Your task to perform on an android device: turn smart compose on in the gmail app Image 0: 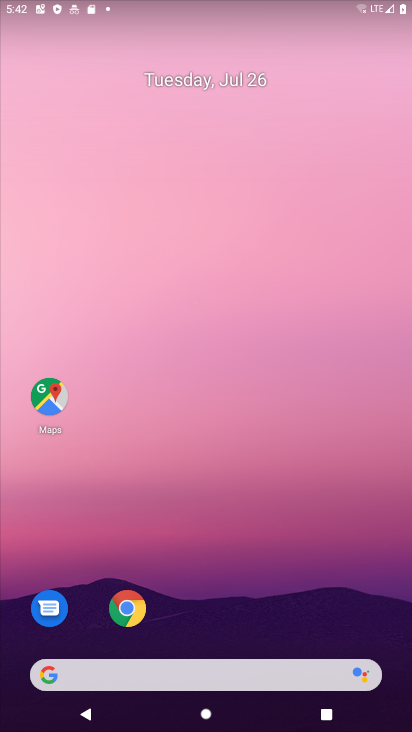
Step 0: press home button
Your task to perform on an android device: turn smart compose on in the gmail app Image 1: 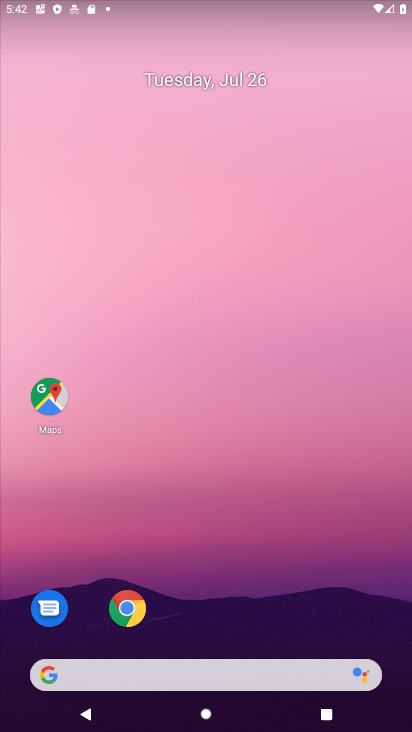
Step 1: drag from (268, 642) to (213, 70)
Your task to perform on an android device: turn smart compose on in the gmail app Image 2: 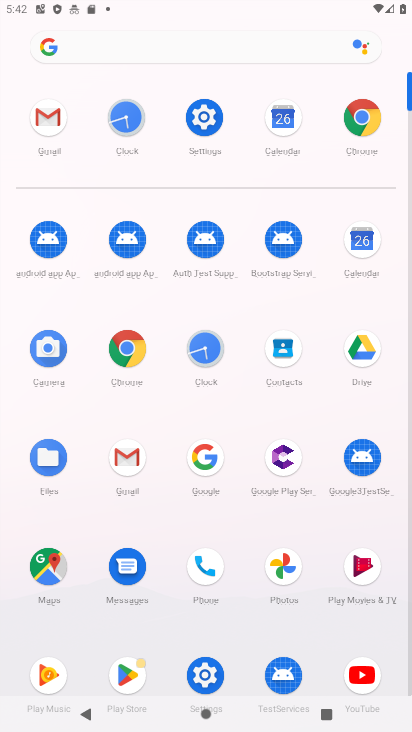
Step 2: click (43, 133)
Your task to perform on an android device: turn smart compose on in the gmail app Image 3: 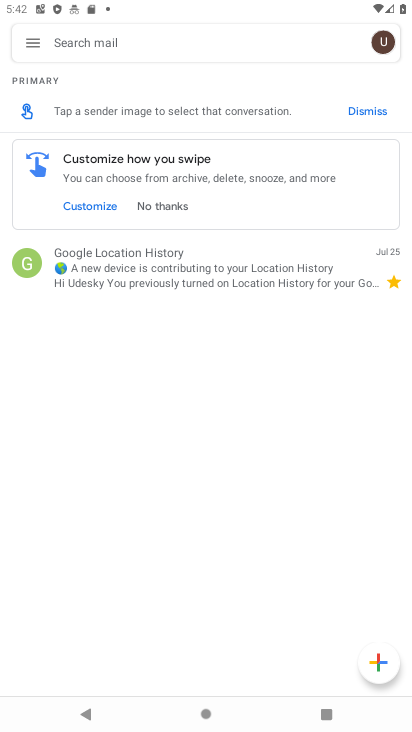
Step 3: click (32, 51)
Your task to perform on an android device: turn smart compose on in the gmail app Image 4: 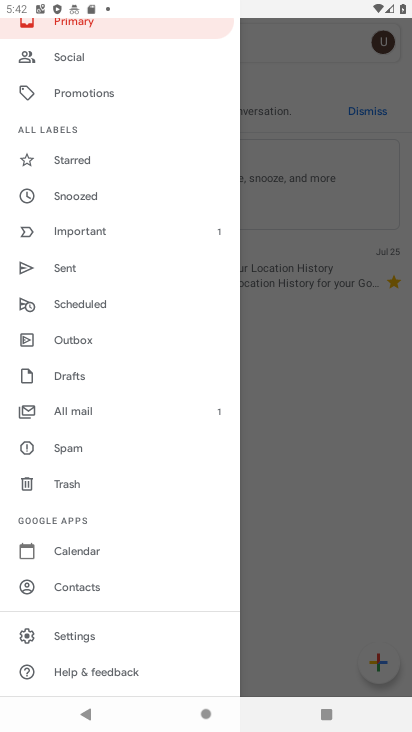
Step 4: click (58, 634)
Your task to perform on an android device: turn smart compose on in the gmail app Image 5: 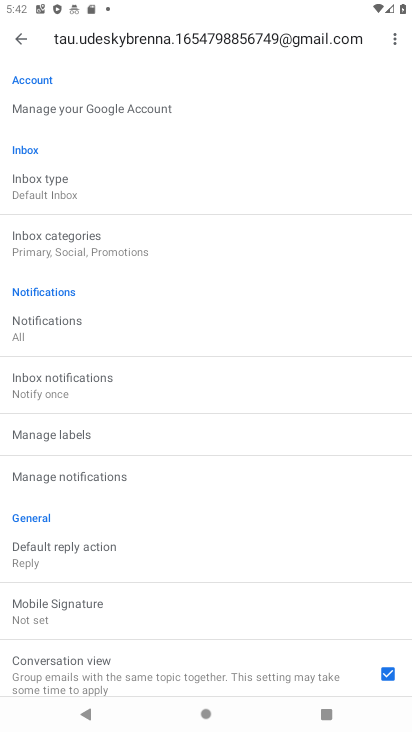
Step 5: task complete